Your task to perform on an android device: see tabs open on other devices in the chrome app Image 0: 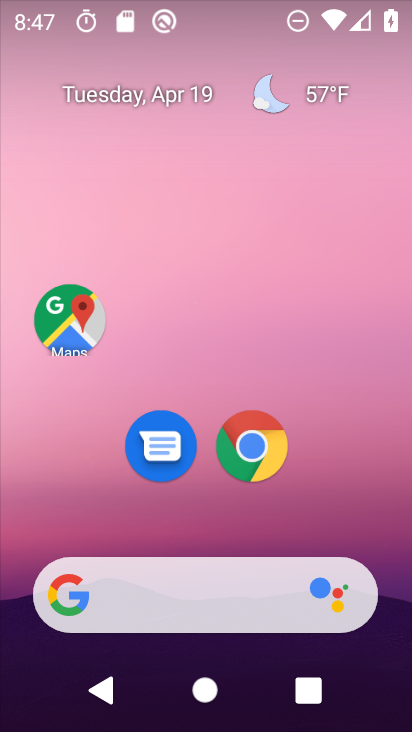
Step 0: drag from (312, 487) to (326, 208)
Your task to perform on an android device: see tabs open on other devices in the chrome app Image 1: 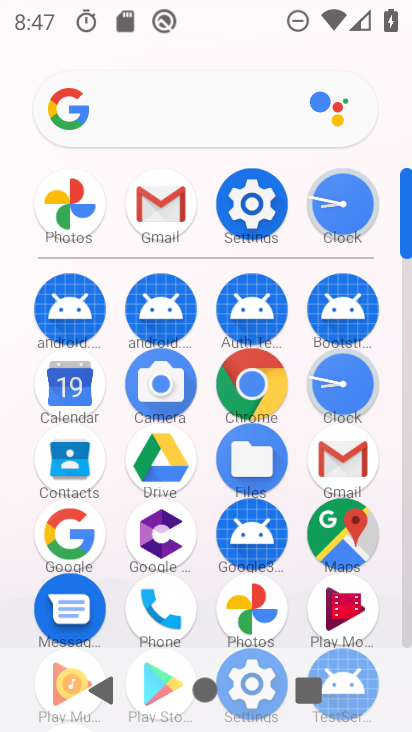
Step 1: click (258, 384)
Your task to perform on an android device: see tabs open on other devices in the chrome app Image 2: 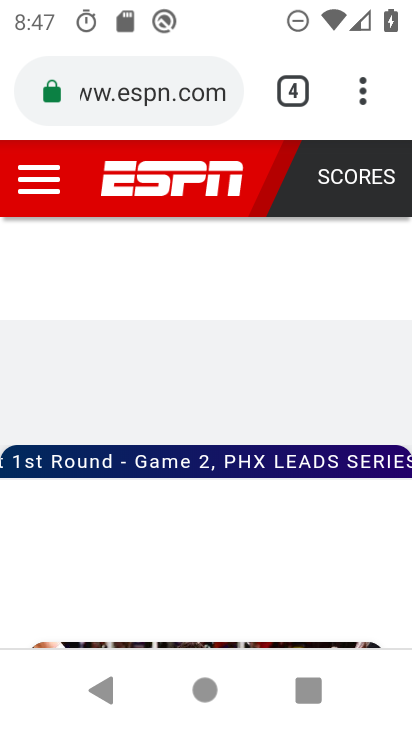
Step 2: click (364, 95)
Your task to perform on an android device: see tabs open on other devices in the chrome app Image 3: 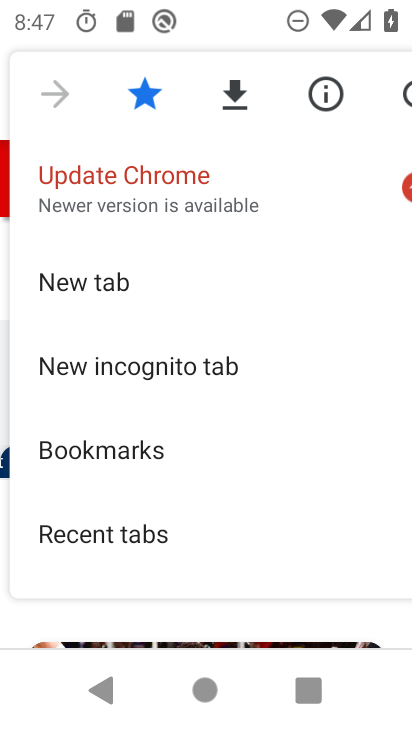
Step 3: click (151, 536)
Your task to perform on an android device: see tabs open on other devices in the chrome app Image 4: 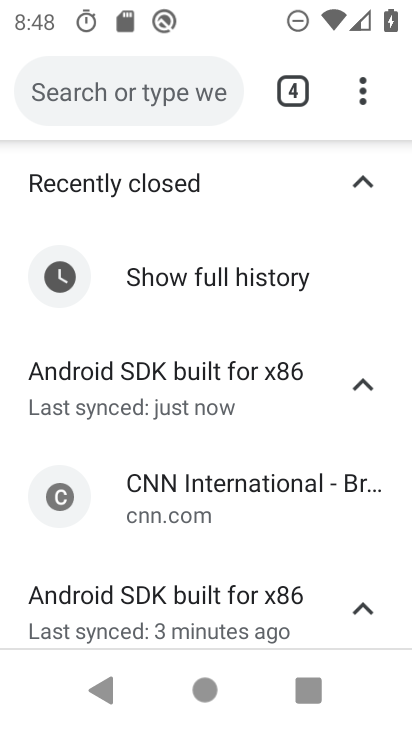
Step 4: task complete